Your task to perform on an android device: Turn on the flashlight Image 0: 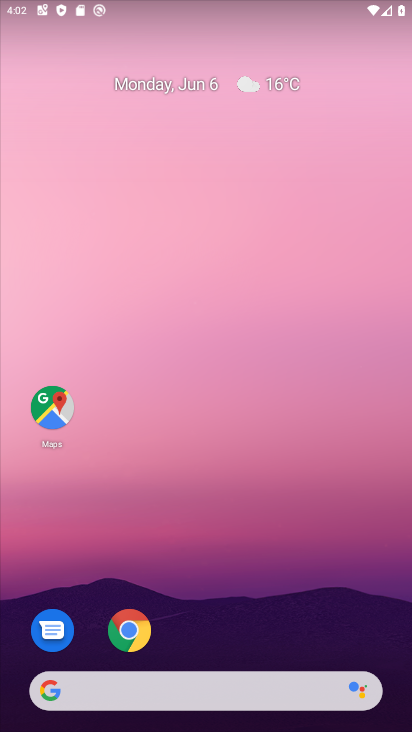
Step 0: drag from (172, 647) to (264, 181)
Your task to perform on an android device: Turn on the flashlight Image 1: 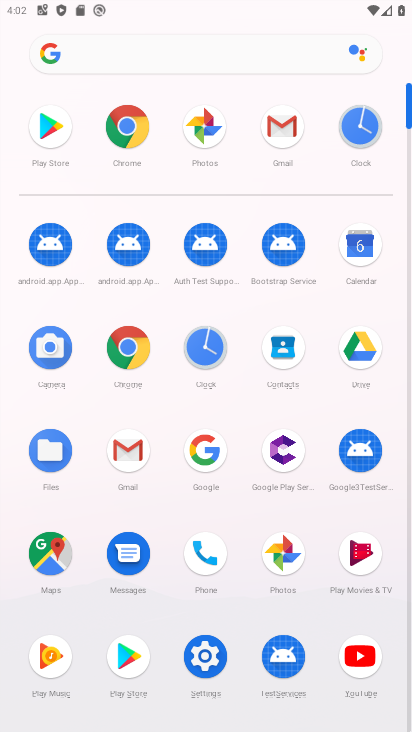
Step 1: click (183, 668)
Your task to perform on an android device: Turn on the flashlight Image 2: 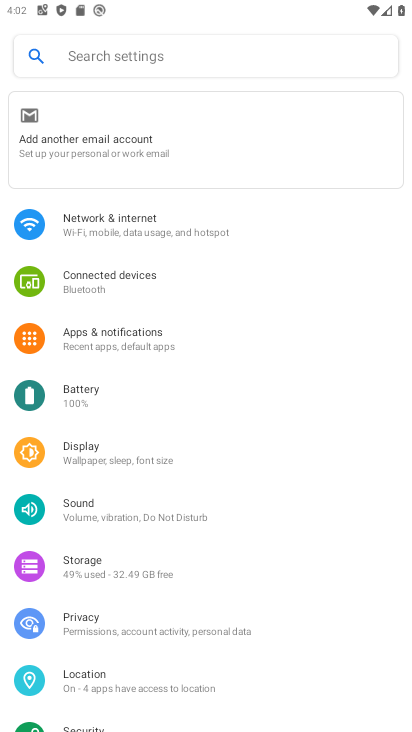
Step 2: click (81, 50)
Your task to perform on an android device: Turn on the flashlight Image 3: 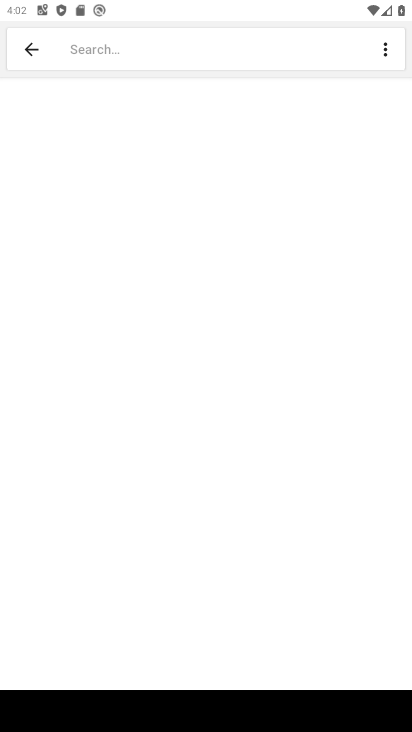
Step 3: type "flashlight"
Your task to perform on an android device: Turn on the flashlight Image 4: 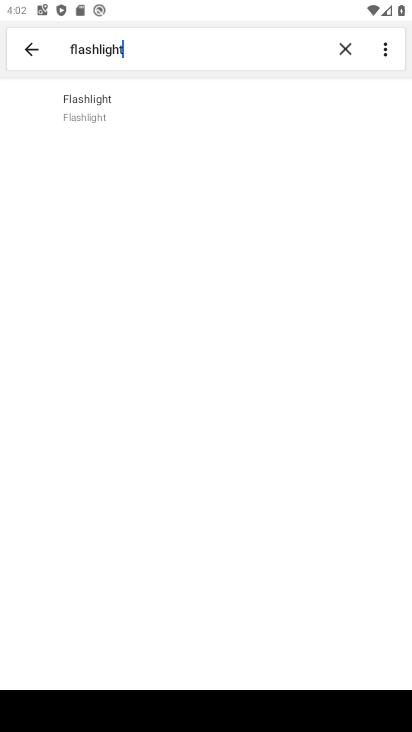
Step 4: click (127, 97)
Your task to perform on an android device: Turn on the flashlight Image 5: 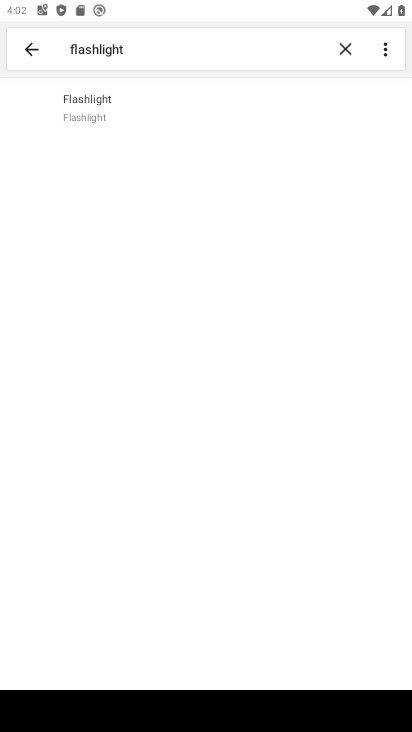
Step 5: task complete